Your task to perform on an android device: open wifi settings Image 0: 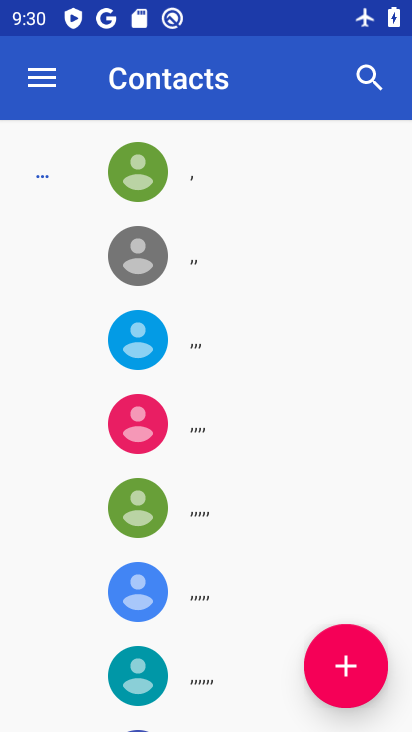
Step 0: press back button
Your task to perform on an android device: open wifi settings Image 1: 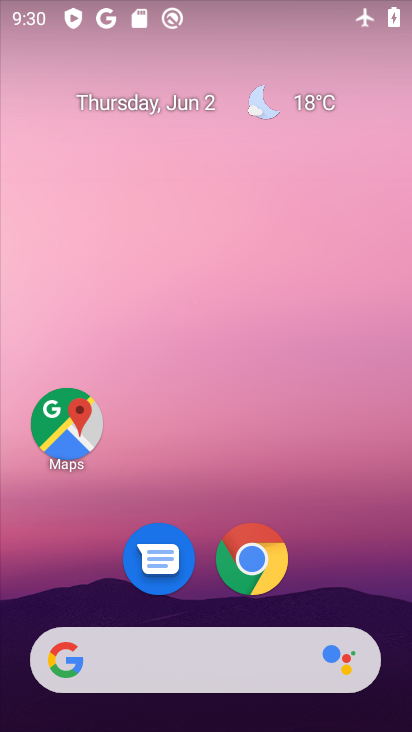
Step 1: drag from (343, 562) to (243, 221)
Your task to perform on an android device: open wifi settings Image 2: 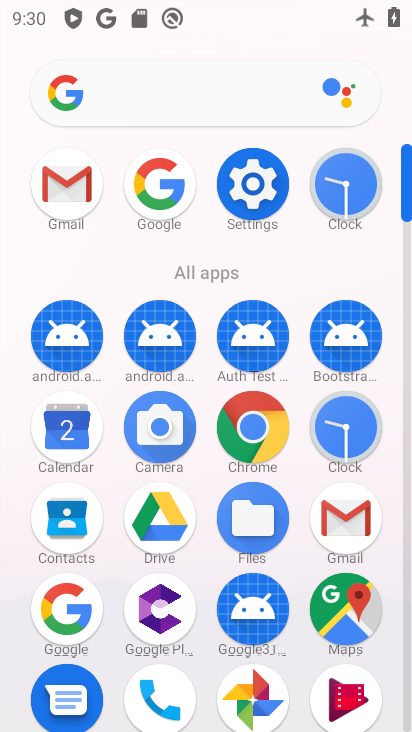
Step 2: click (251, 187)
Your task to perform on an android device: open wifi settings Image 3: 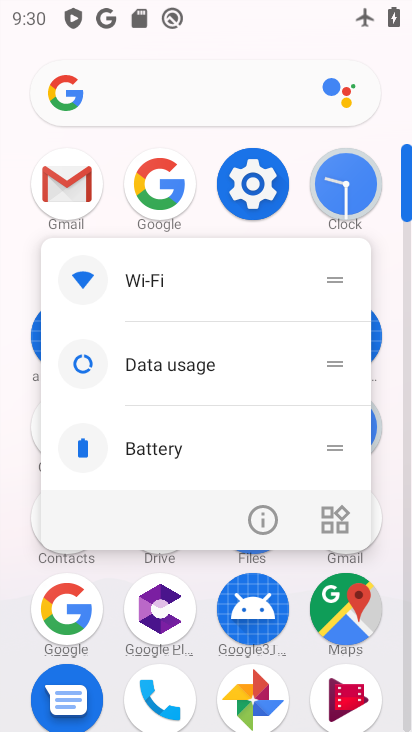
Step 3: click (146, 279)
Your task to perform on an android device: open wifi settings Image 4: 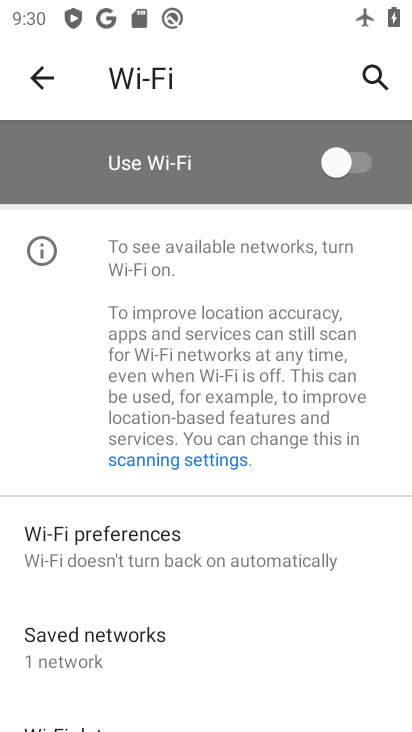
Step 4: task complete